Your task to perform on an android device: Open Google Maps and go to "Timeline" Image 0: 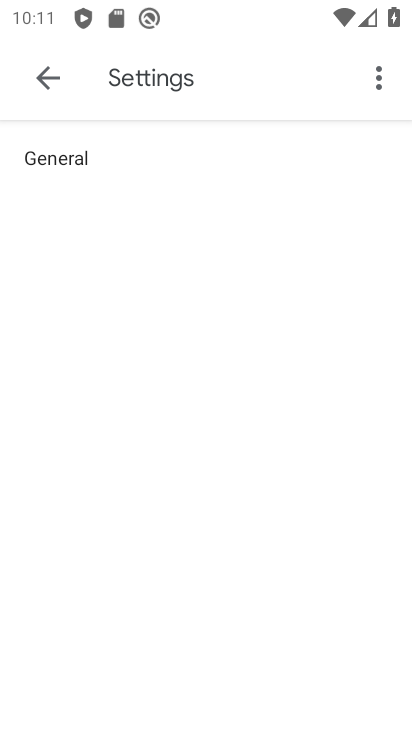
Step 0: press back button
Your task to perform on an android device: Open Google Maps and go to "Timeline" Image 1: 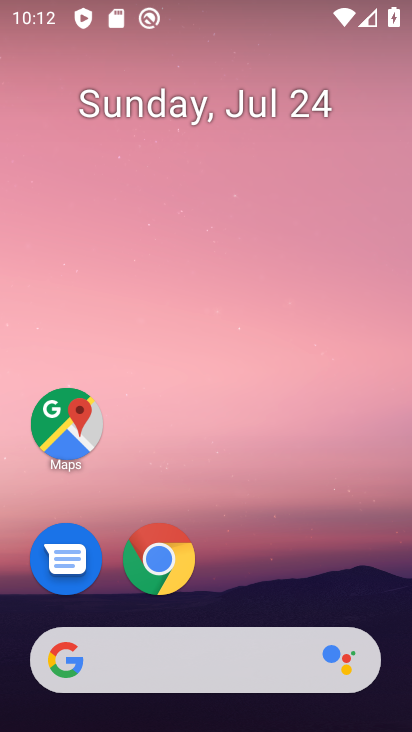
Step 1: click (62, 432)
Your task to perform on an android device: Open Google Maps and go to "Timeline" Image 2: 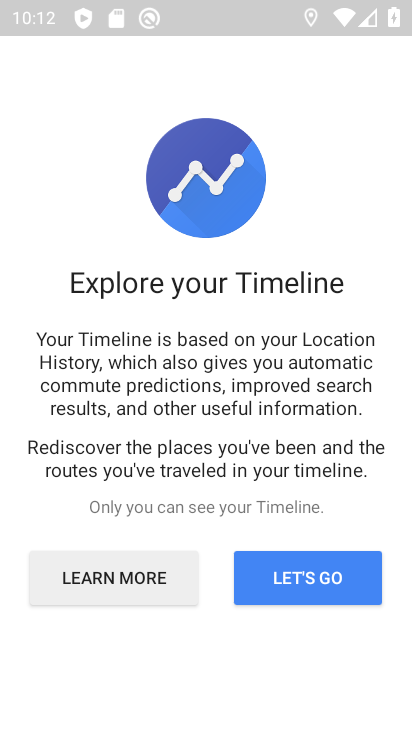
Step 2: drag from (187, 507) to (264, 82)
Your task to perform on an android device: Open Google Maps and go to "Timeline" Image 3: 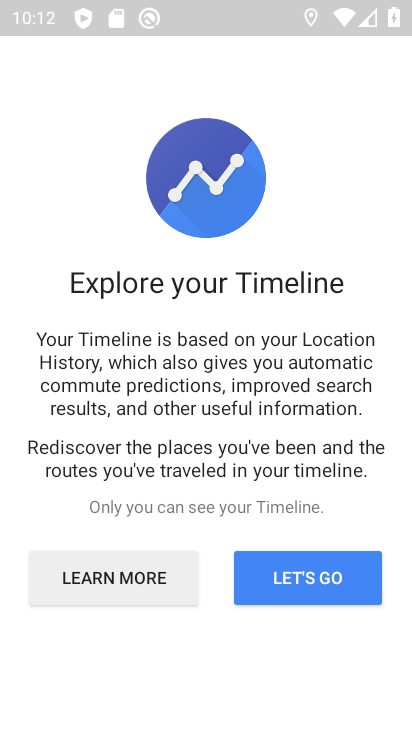
Step 3: click (308, 586)
Your task to perform on an android device: Open Google Maps and go to "Timeline" Image 4: 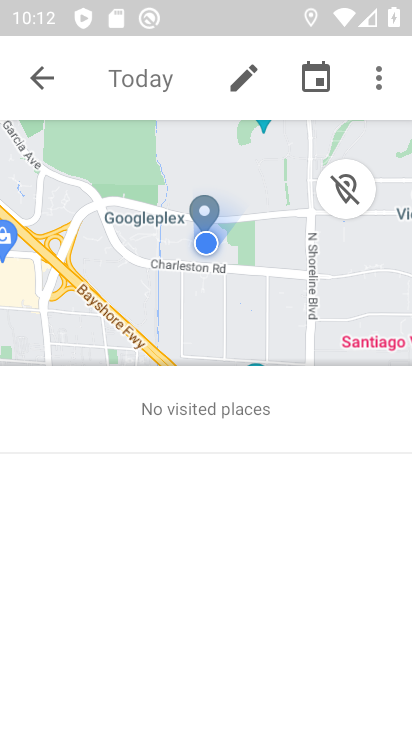
Step 4: click (48, 75)
Your task to perform on an android device: Open Google Maps and go to "Timeline" Image 5: 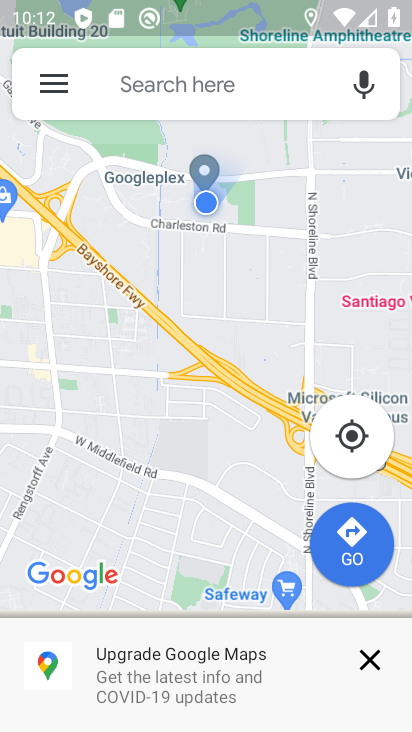
Step 5: click (50, 82)
Your task to perform on an android device: Open Google Maps and go to "Timeline" Image 6: 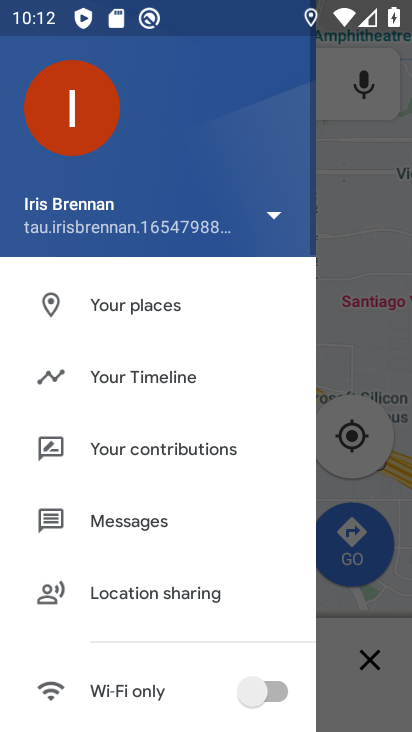
Step 6: click (156, 393)
Your task to perform on an android device: Open Google Maps and go to "Timeline" Image 7: 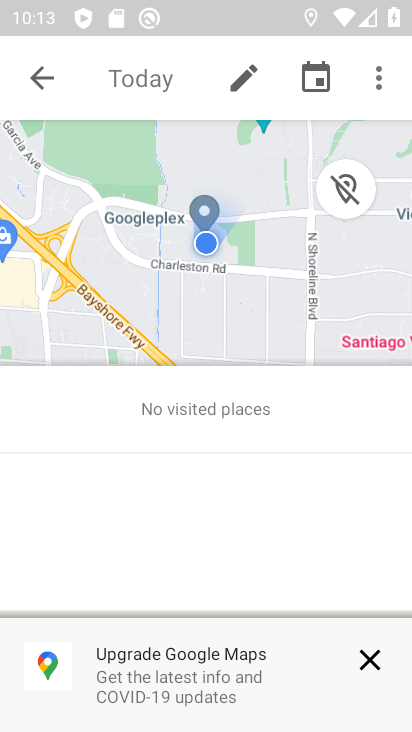
Step 7: task complete